Your task to perform on an android device: Open Chrome and go to the settings page Image 0: 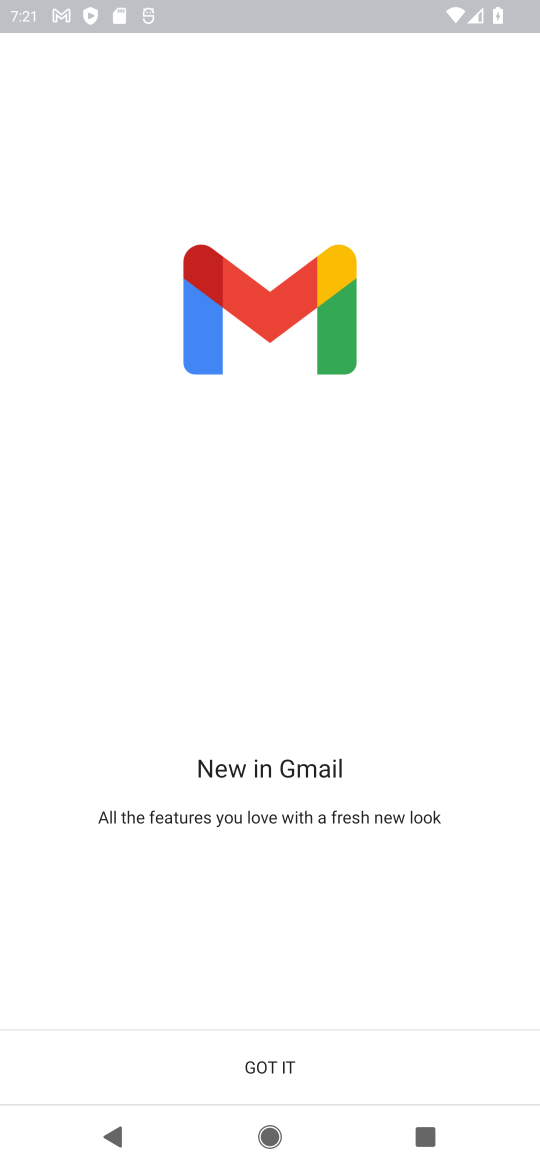
Step 0: press home button
Your task to perform on an android device: Open Chrome and go to the settings page Image 1: 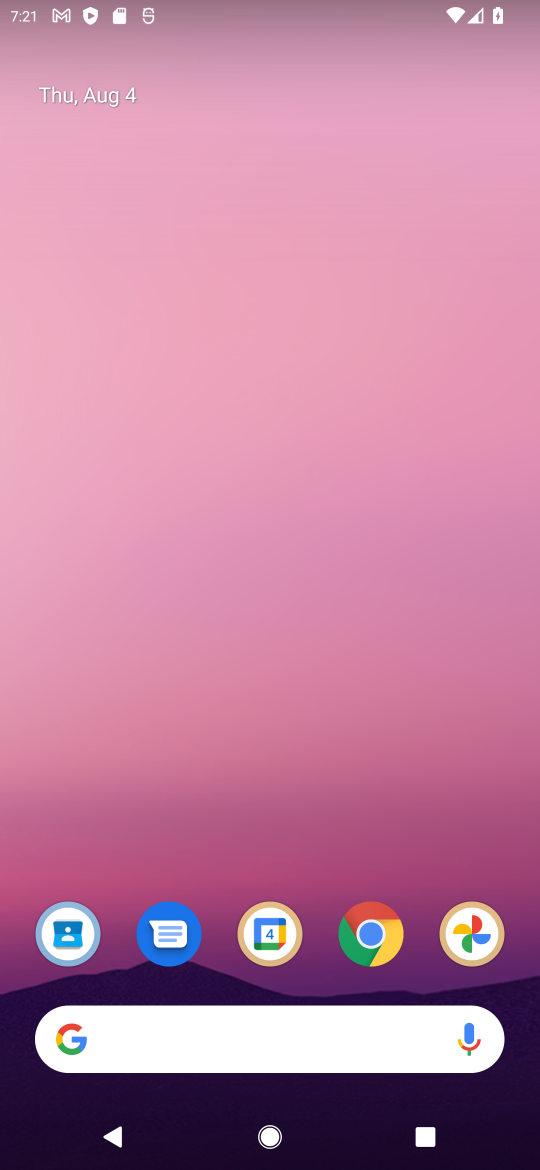
Step 1: click (368, 940)
Your task to perform on an android device: Open Chrome and go to the settings page Image 2: 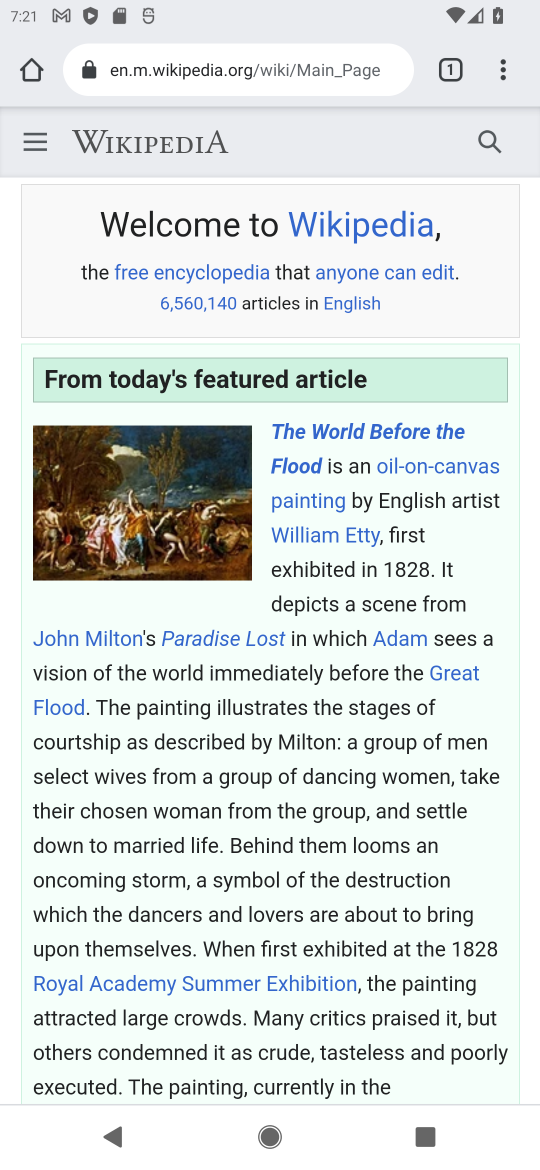
Step 2: task complete